Your task to perform on an android device: turn on data saver in the chrome app Image 0: 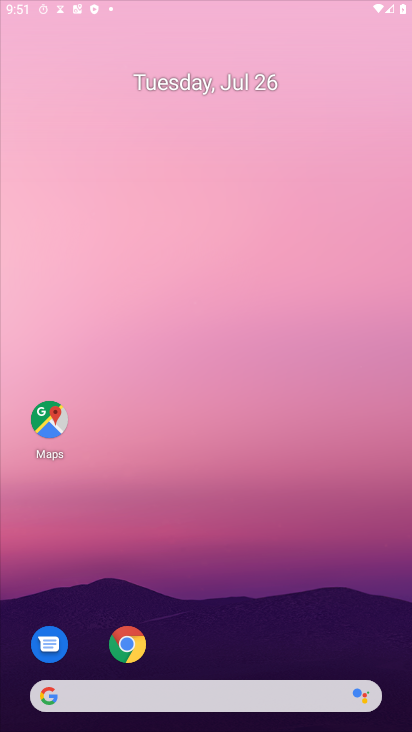
Step 0: click (195, 263)
Your task to perform on an android device: turn on data saver in the chrome app Image 1: 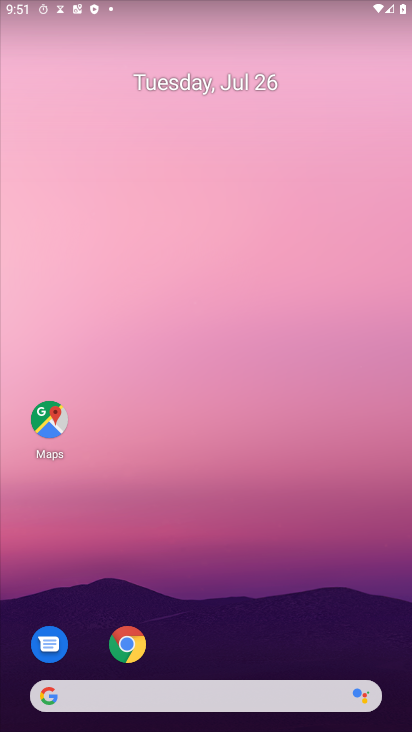
Step 1: click (130, 646)
Your task to perform on an android device: turn on data saver in the chrome app Image 2: 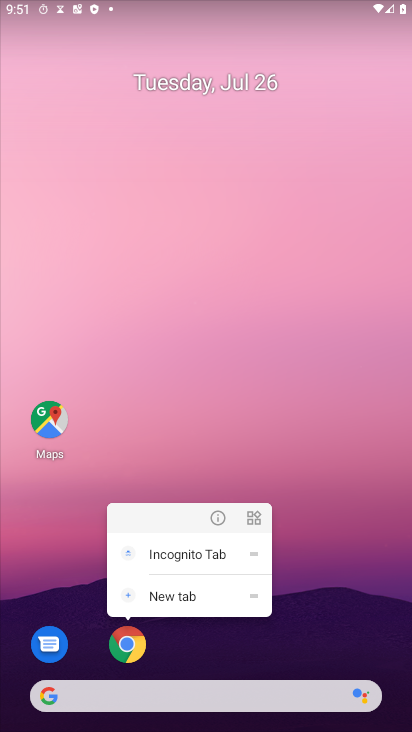
Step 2: click (134, 662)
Your task to perform on an android device: turn on data saver in the chrome app Image 3: 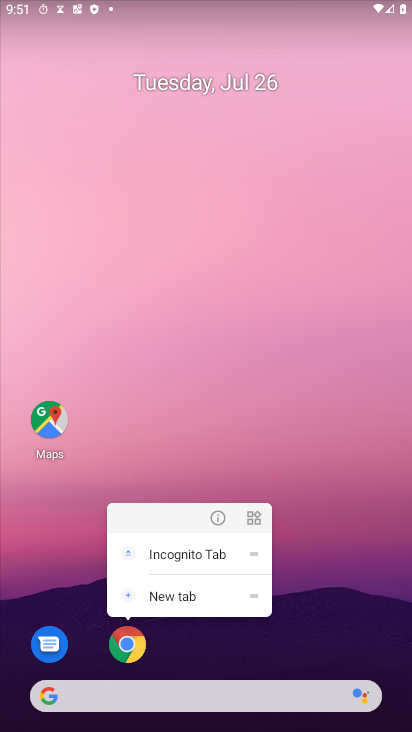
Step 3: click (136, 665)
Your task to perform on an android device: turn on data saver in the chrome app Image 4: 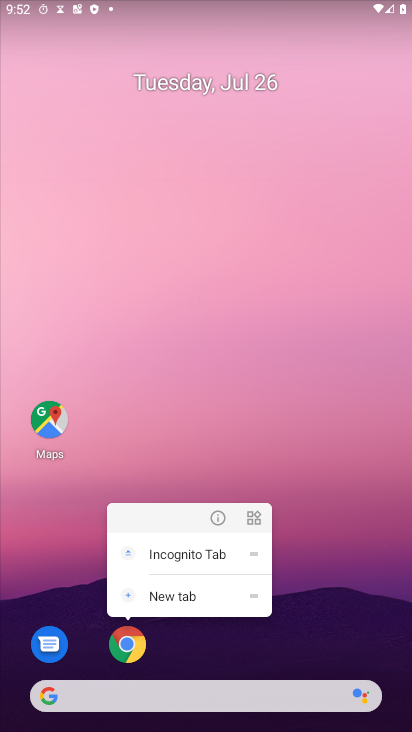
Step 4: click (129, 648)
Your task to perform on an android device: turn on data saver in the chrome app Image 5: 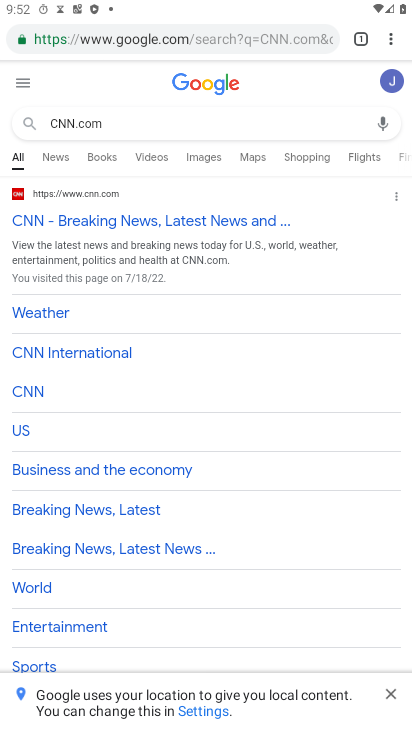
Step 5: click (390, 36)
Your task to perform on an android device: turn on data saver in the chrome app Image 6: 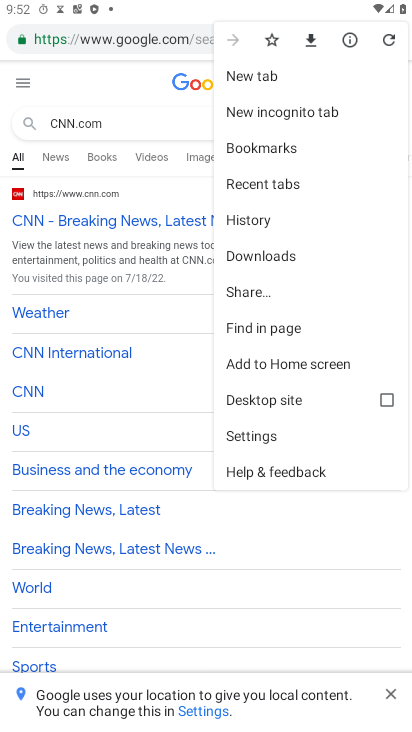
Step 6: click (260, 436)
Your task to perform on an android device: turn on data saver in the chrome app Image 7: 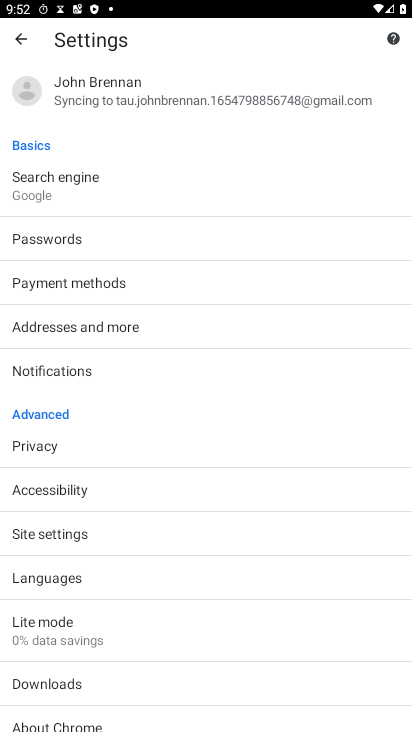
Step 7: click (79, 630)
Your task to perform on an android device: turn on data saver in the chrome app Image 8: 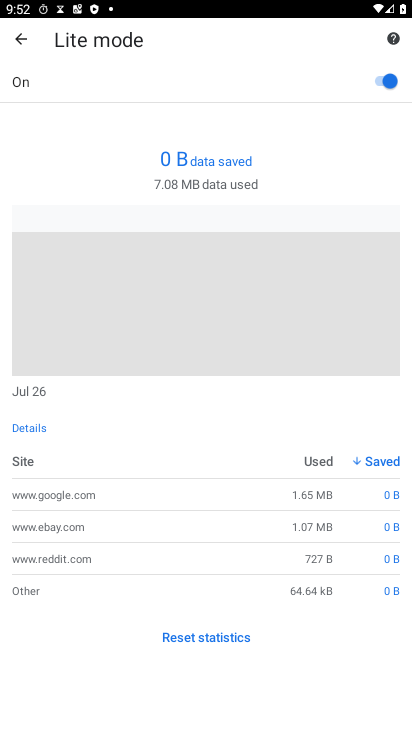
Step 8: task complete